Your task to perform on an android device: toggle sleep mode Image 0: 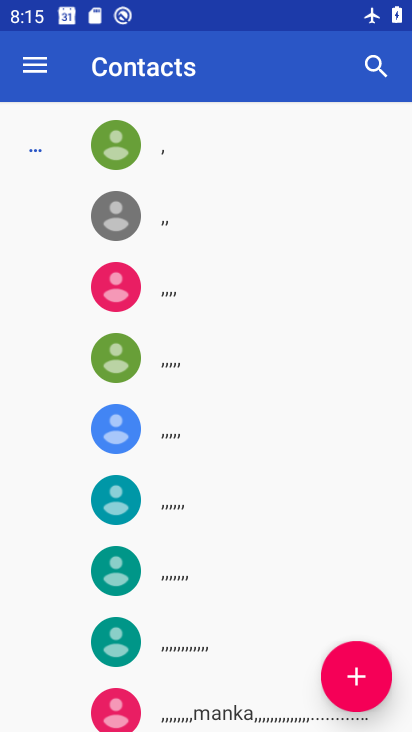
Step 0: press home button
Your task to perform on an android device: toggle sleep mode Image 1: 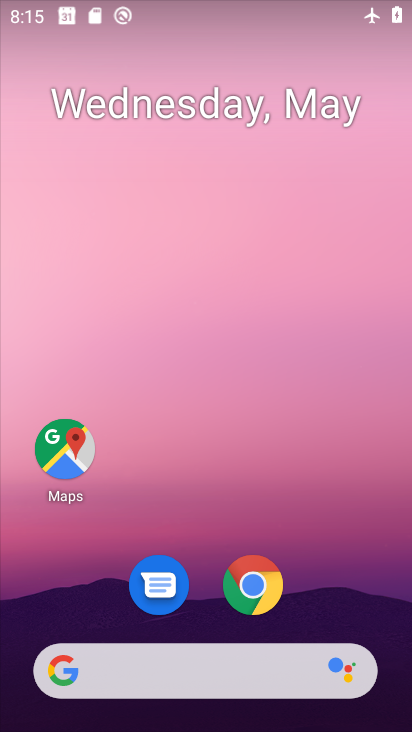
Step 1: drag from (304, 483) to (193, 70)
Your task to perform on an android device: toggle sleep mode Image 2: 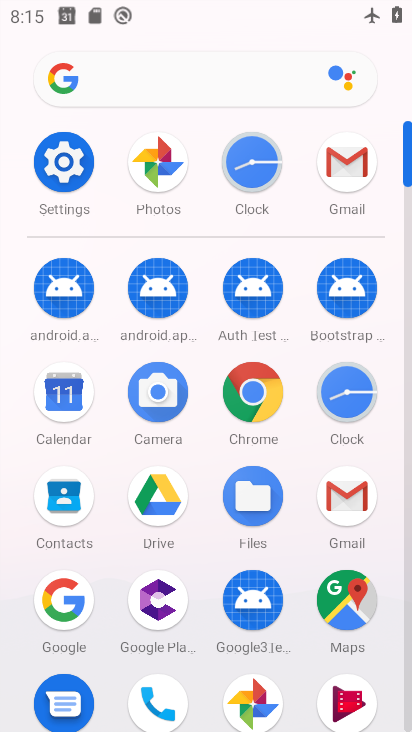
Step 2: click (74, 155)
Your task to perform on an android device: toggle sleep mode Image 3: 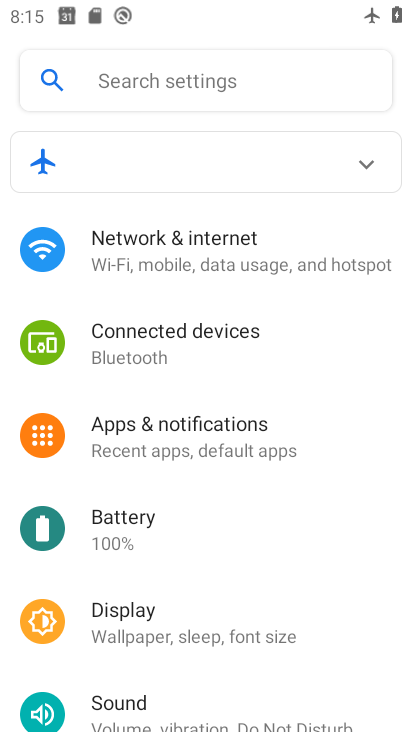
Step 3: click (245, 628)
Your task to perform on an android device: toggle sleep mode Image 4: 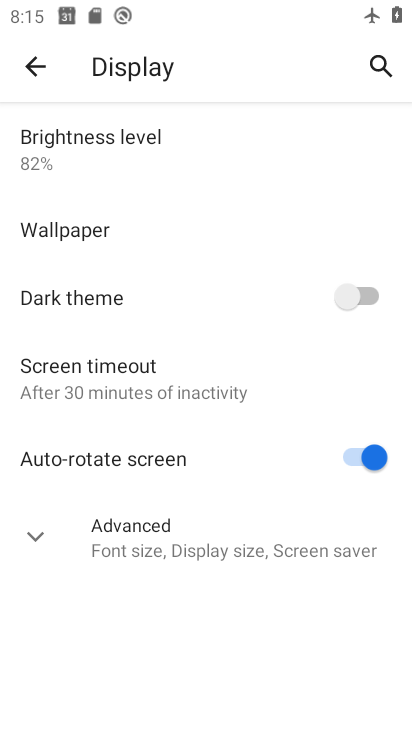
Step 4: click (39, 534)
Your task to perform on an android device: toggle sleep mode Image 5: 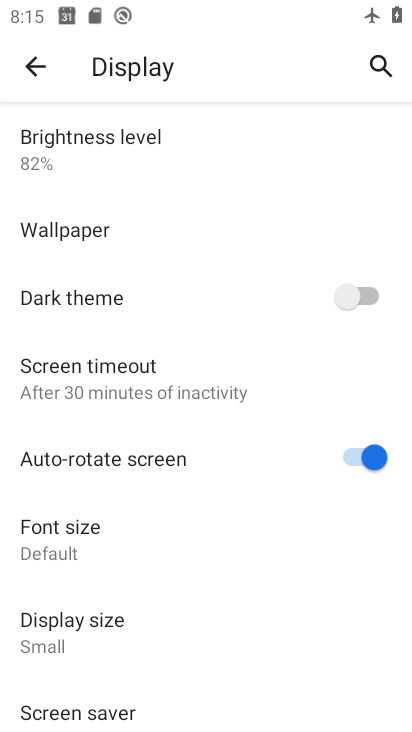
Step 5: task complete